Your task to perform on an android device: Open battery settings Image 0: 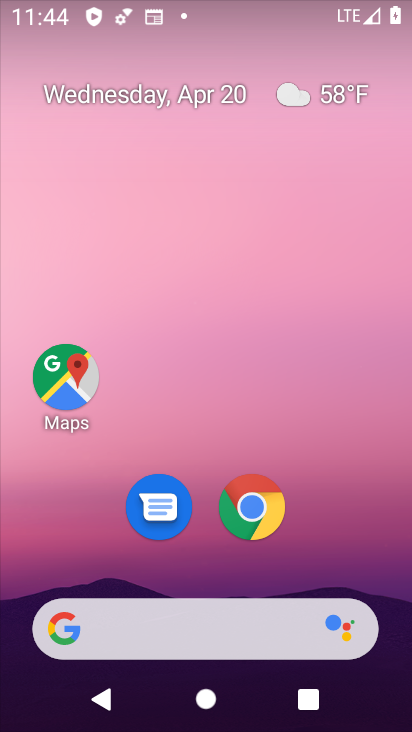
Step 0: drag from (365, 533) to (384, 138)
Your task to perform on an android device: Open battery settings Image 1: 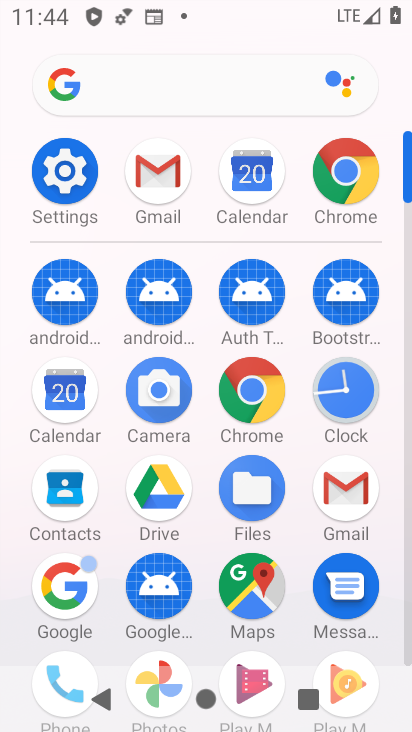
Step 1: click (59, 177)
Your task to perform on an android device: Open battery settings Image 2: 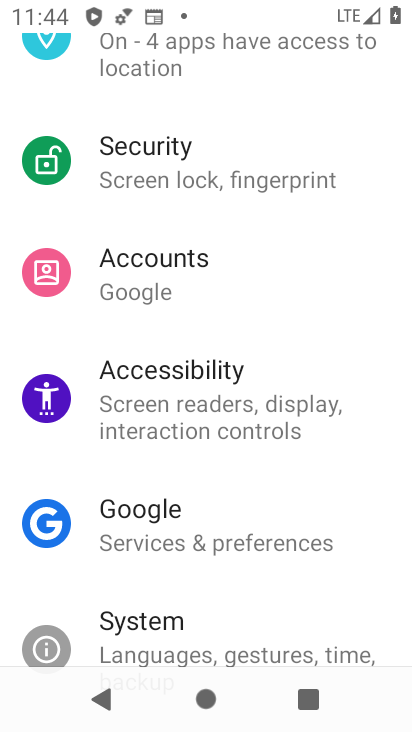
Step 2: drag from (352, 569) to (348, 395)
Your task to perform on an android device: Open battery settings Image 3: 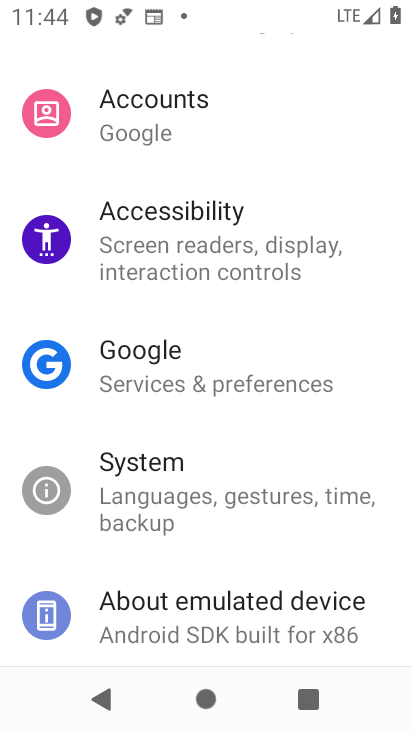
Step 3: drag from (345, 552) to (347, 344)
Your task to perform on an android device: Open battery settings Image 4: 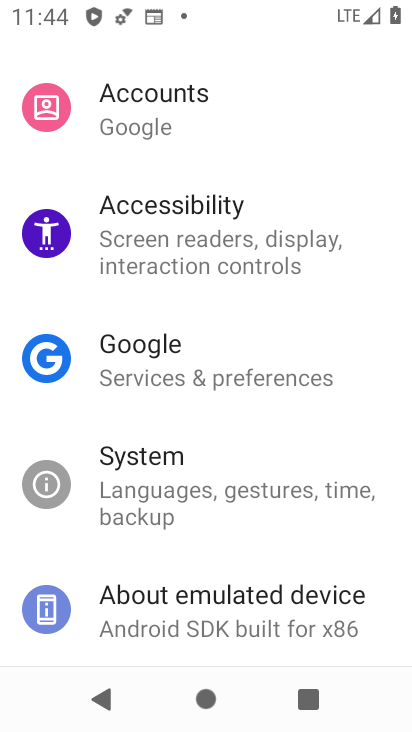
Step 4: drag from (363, 266) to (367, 396)
Your task to perform on an android device: Open battery settings Image 5: 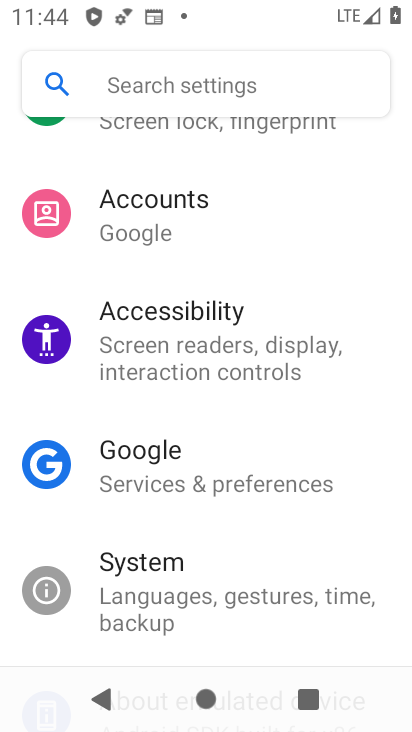
Step 5: drag from (368, 273) to (381, 421)
Your task to perform on an android device: Open battery settings Image 6: 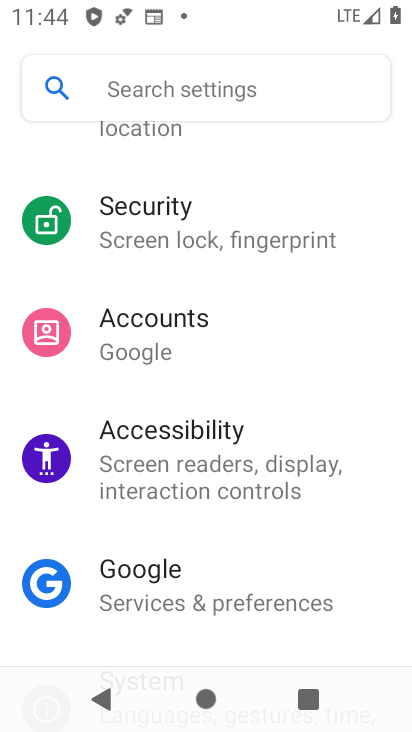
Step 6: drag from (371, 298) to (364, 408)
Your task to perform on an android device: Open battery settings Image 7: 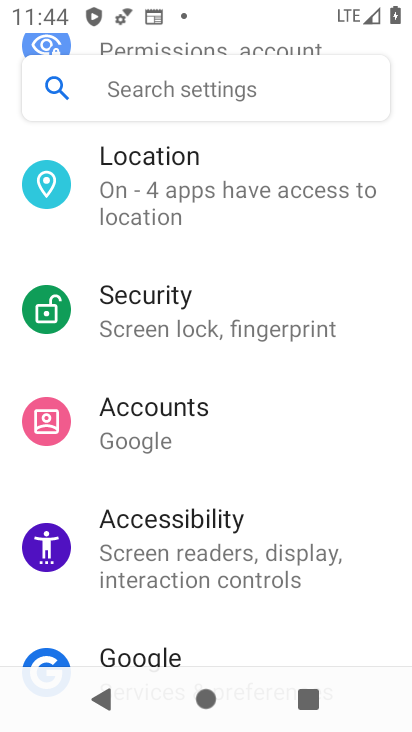
Step 7: drag from (365, 288) to (360, 408)
Your task to perform on an android device: Open battery settings Image 8: 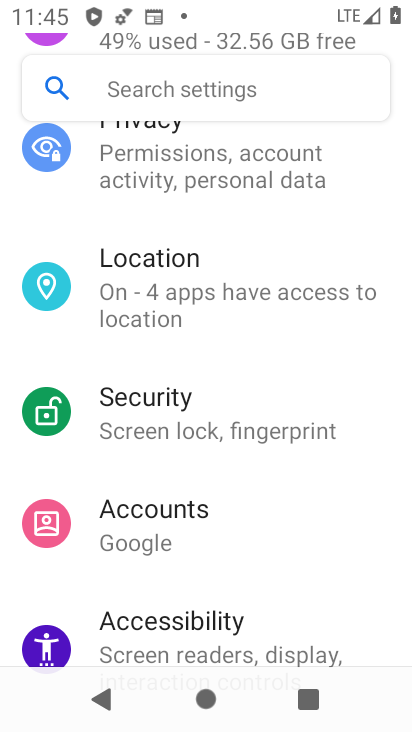
Step 8: drag from (354, 326) to (356, 427)
Your task to perform on an android device: Open battery settings Image 9: 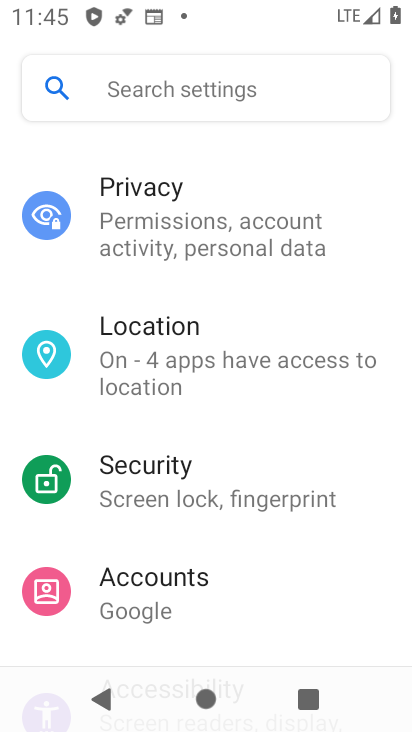
Step 9: drag from (364, 264) to (362, 384)
Your task to perform on an android device: Open battery settings Image 10: 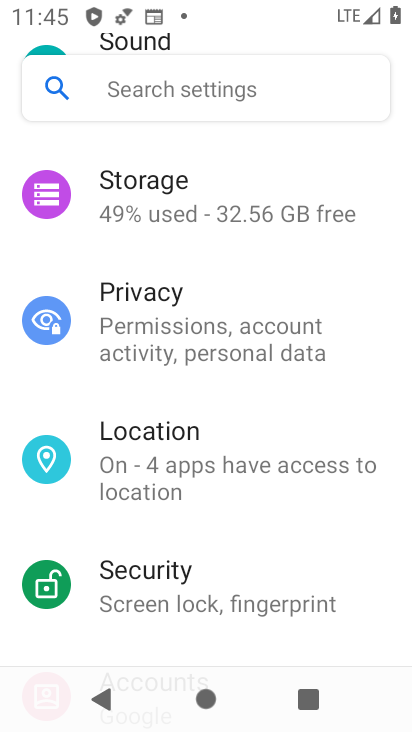
Step 10: drag from (354, 302) to (359, 407)
Your task to perform on an android device: Open battery settings Image 11: 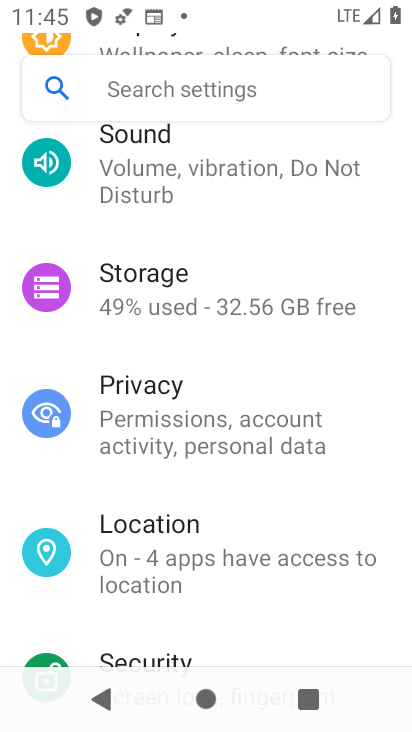
Step 11: drag from (366, 339) to (370, 392)
Your task to perform on an android device: Open battery settings Image 12: 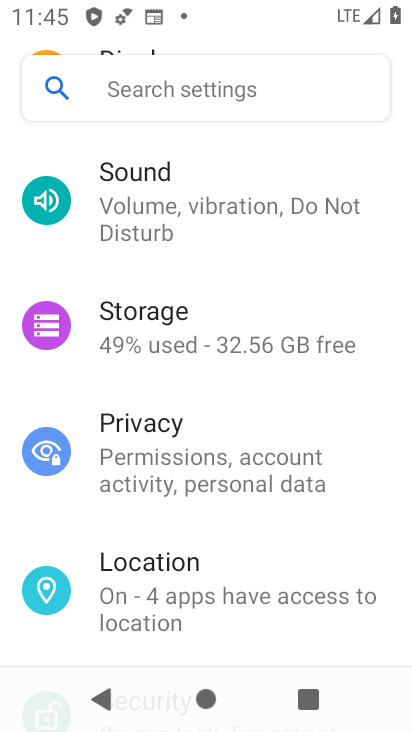
Step 12: drag from (371, 369) to (370, 447)
Your task to perform on an android device: Open battery settings Image 13: 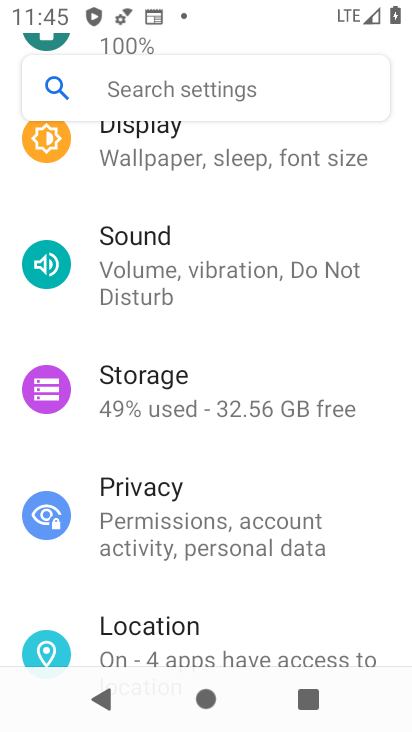
Step 13: drag from (366, 361) to (364, 420)
Your task to perform on an android device: Open battery settings Image 14: 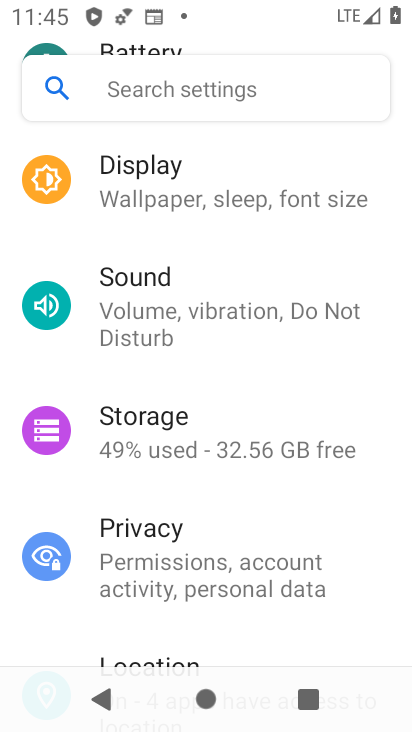
Step 14: drag from (371, 336) to (369, 454)
Your task to perform on an android device: Open battery settings Image 15: 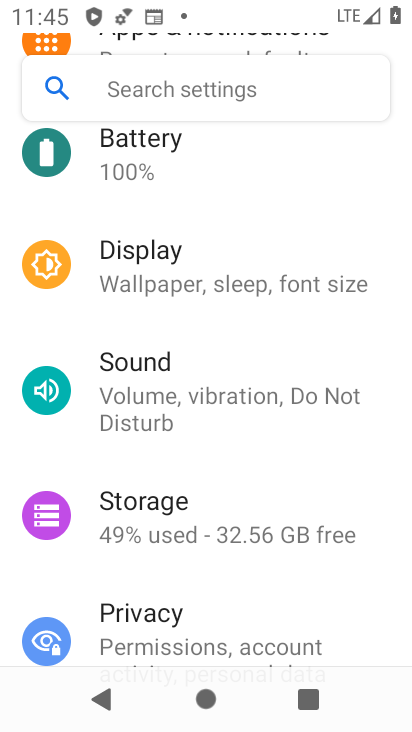
Step 15: drag from (379, 345) to (386, 482)
Your task to perform on an android device: Open battery settings Image 16: 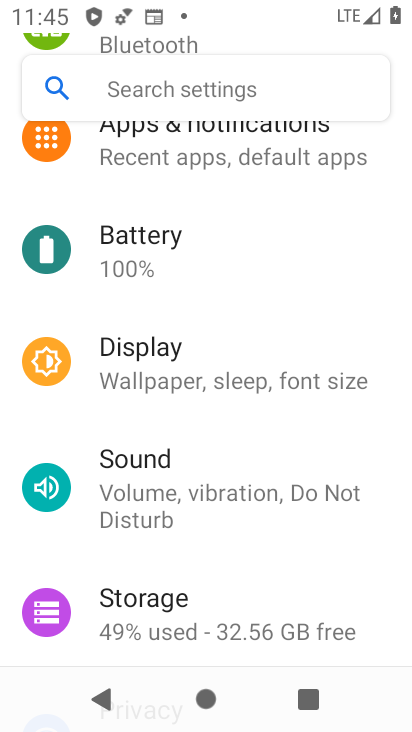
Step 16: drag from (385, 347) to (381, 470)
Your task to perform on an android device: Open battery settings Image 17: 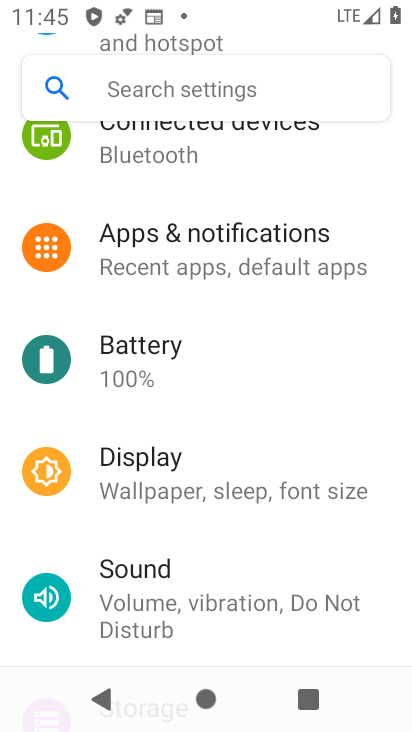
Step 17: drag from (382, 370) to (386, 428)
Your task to perform on an android device: Open battery settings Image 18: 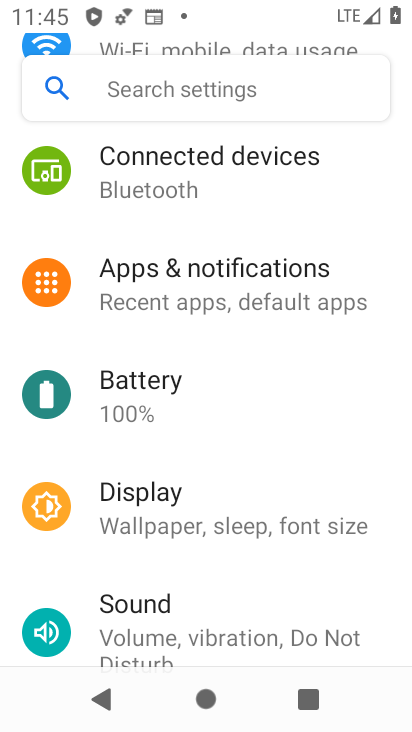
Step 18: drag from (386, 385) to (387, 433)
Your task to perform on an android device: Open battery settings Image 19: 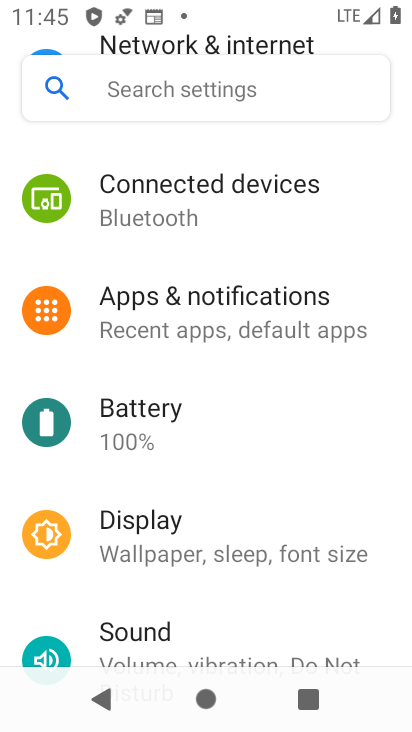
Step 19: click (189, 429)
Your task to perform on an android device: Open battery settings Image 20: 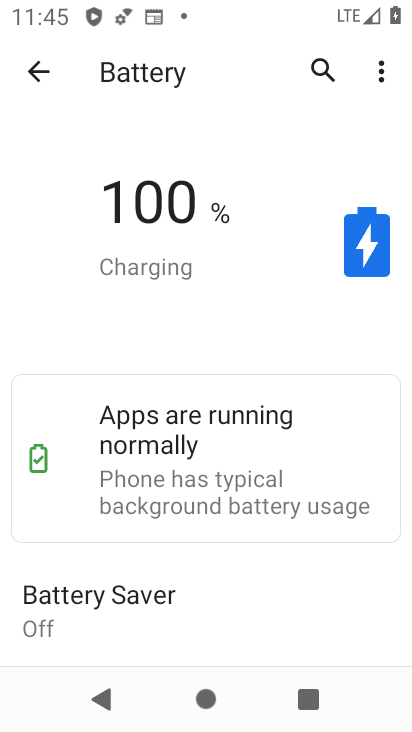
Step 20: task complete